Your task to perform on an android device: Open notification settings Image 0: 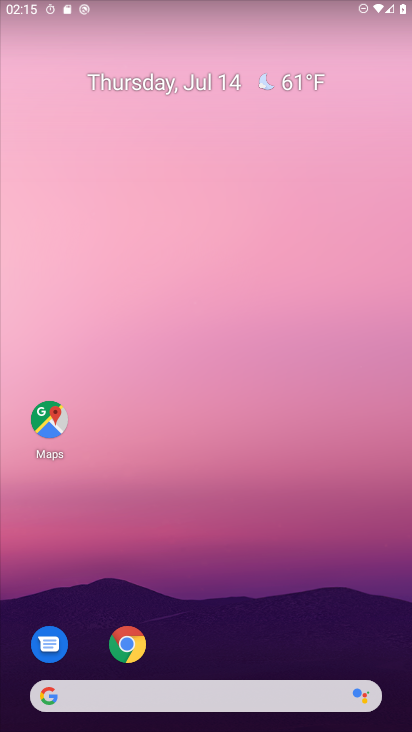
Step 0: drag from (198, 611) to (196, 148)
Your task to perform on an android device: Open notification settings Image 1: 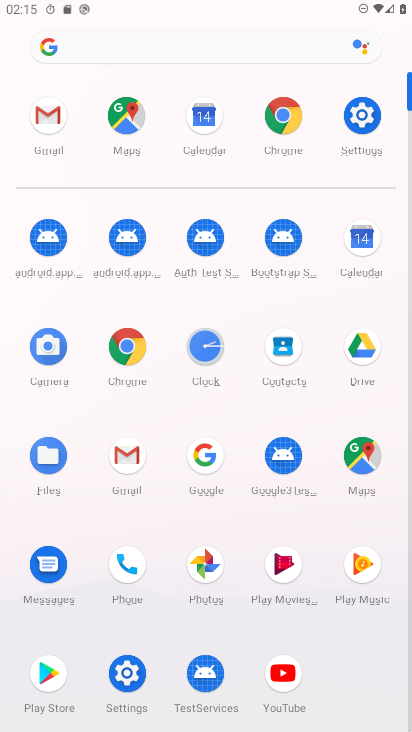
Step 1: click (365, 117)
Your task to perform on an android device: Open notification settings Image 2: 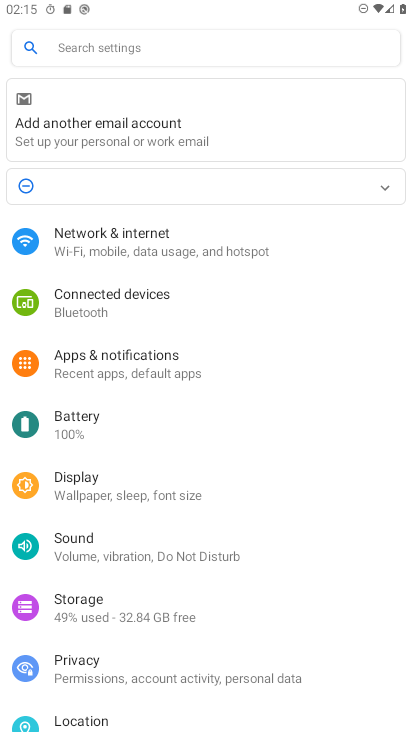
Step 2: click (129, 360)
Your task to perform on an android device: Open notification settings Image 3: 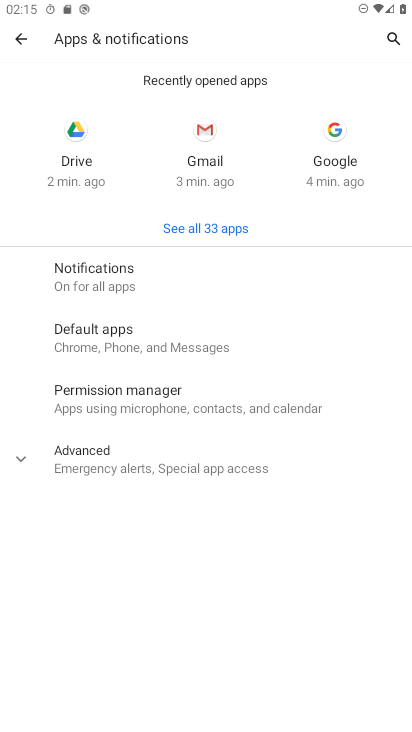
Step 3: click (111, 276)
Your task to perform on an android device: Open notification settings Image 4: 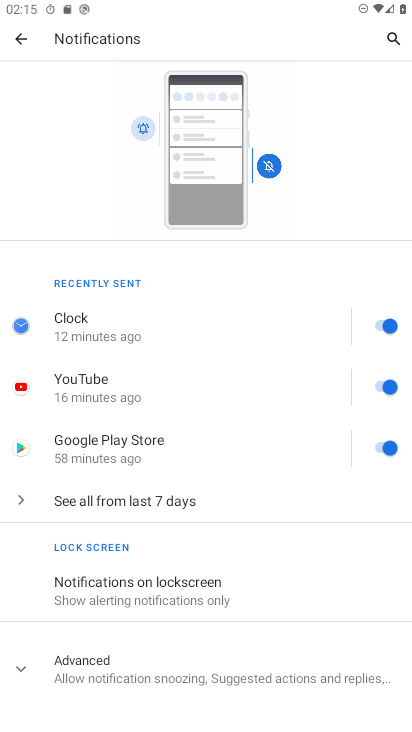
Step 4: task complete